Your task to perform on an android device: Do I have any events today? Image 0: 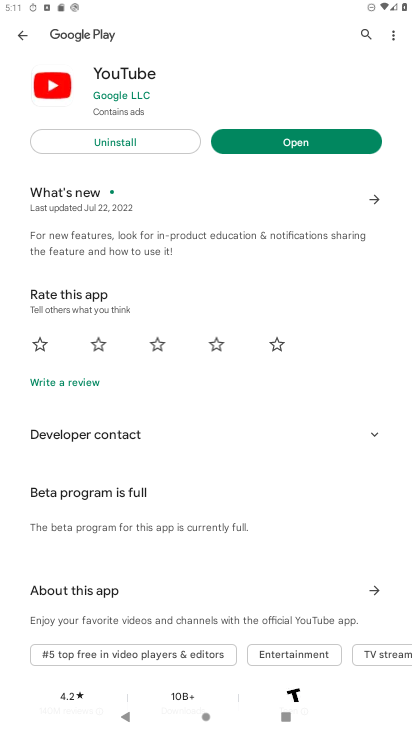
Step 0: press home button
Your task to perform on an android device: Do I have any events today? Image 1: 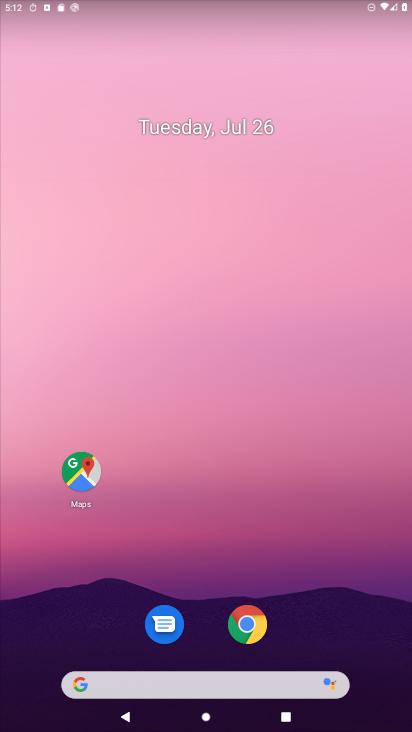
Step 1: drag from (338, 690) to (215, 101)
Your task to perform on an android device: Do I have any events today? Image 2: 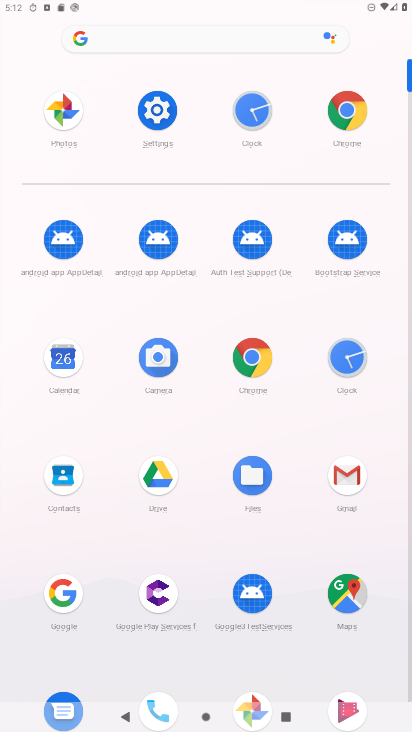
Step 2: click (70, 357)
Your task to perform on an android device: Do I have any events today? Image 3: 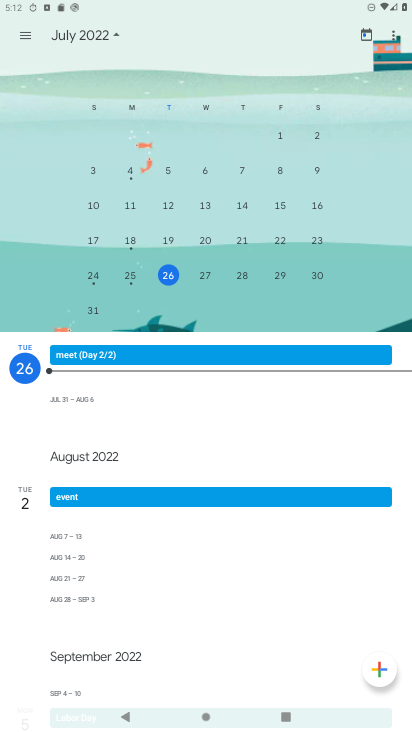
Step 3: click (199, 275)
Your task to perform on an android device: Do I have any events today? Image 4: 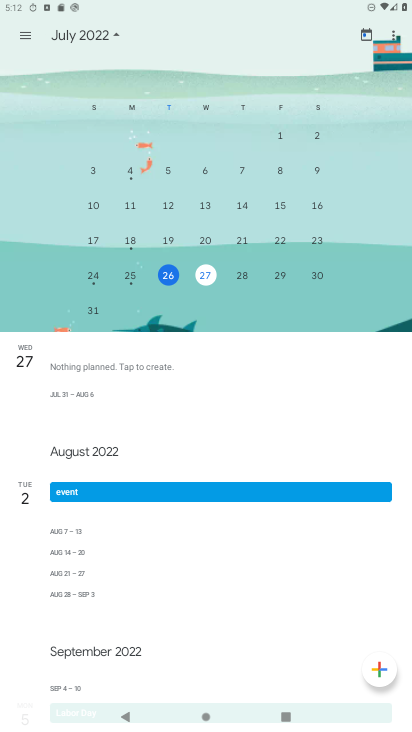
Step 4: click (172, 278)
Your task to perform on an android device: Do I have any events today? Image 5: 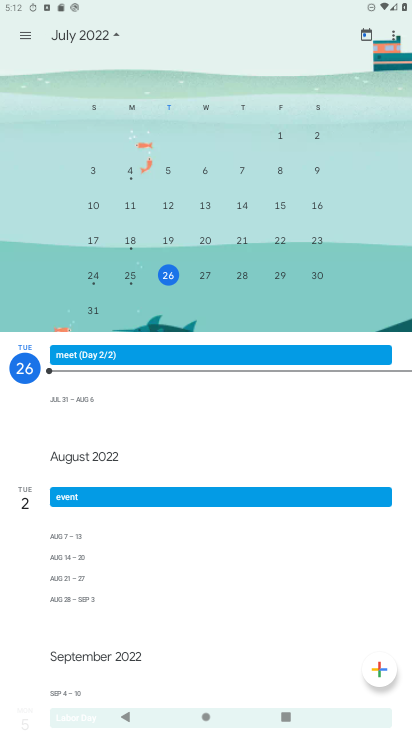
Step 5: task complete